Your task to perform on an android device: turn off wifi Image 0: 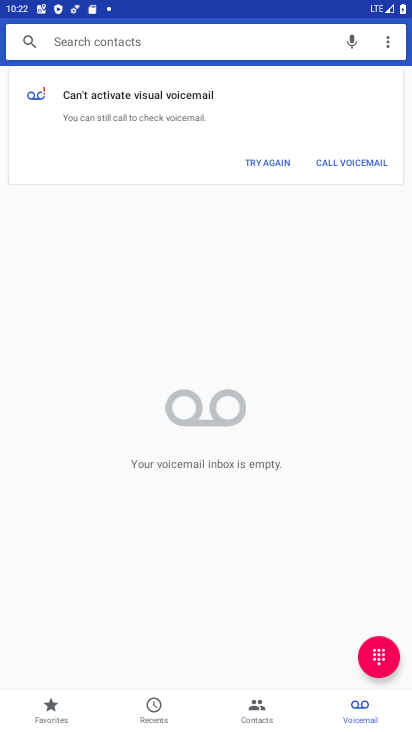
Step 0: press home button
Your task to perform on an android device: turn off wifi Image 1: 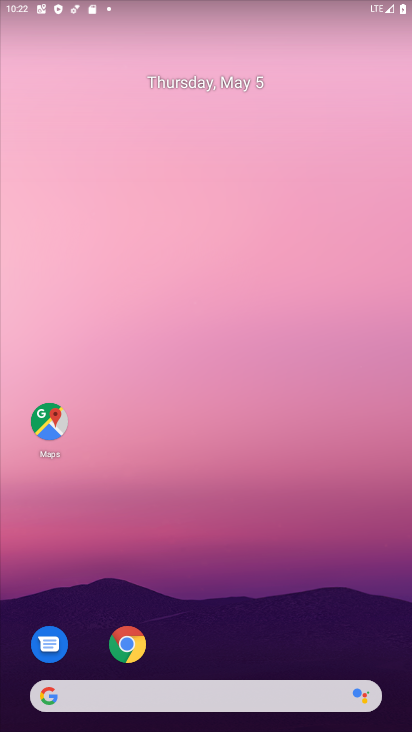
Step 1: drag from (205, 657) to (155, 73)
Your task to perform on an android device: turn off wifi Image 2: 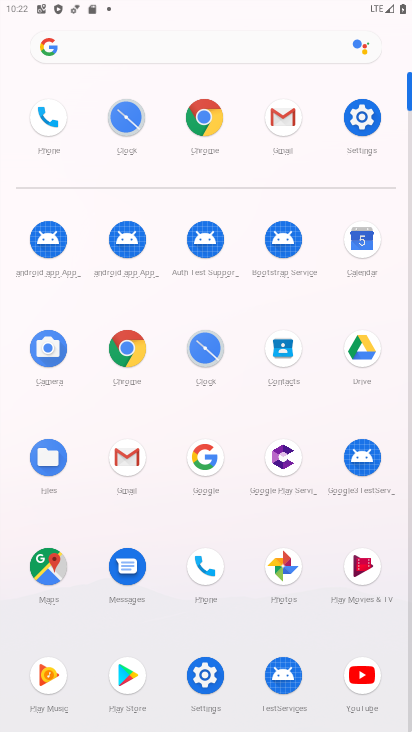
Step 2: click (357, 125)
Your task to perform on an android device: turn off wifi Image 3: 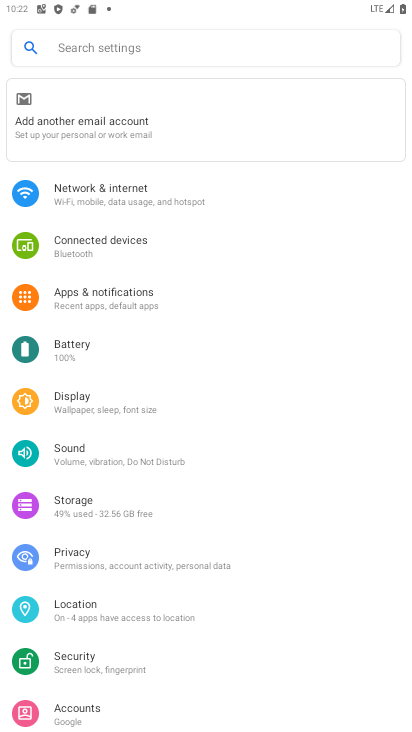
Step 3: click (112, 179)
Your task to perform on an android device: turn off wifi Image 4: 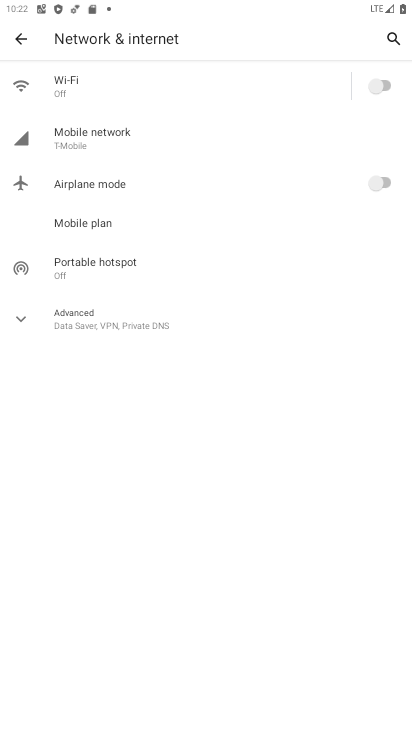
Step 4: click (299, 81)
Your task to perform on an android device: turn off wifi Image 5: 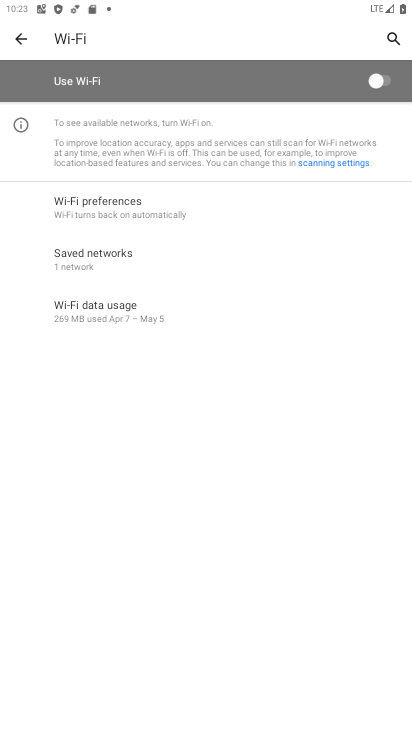
Step 5: task complete